Your task to perform on an android device: turn off improve location accuracy Image 0: 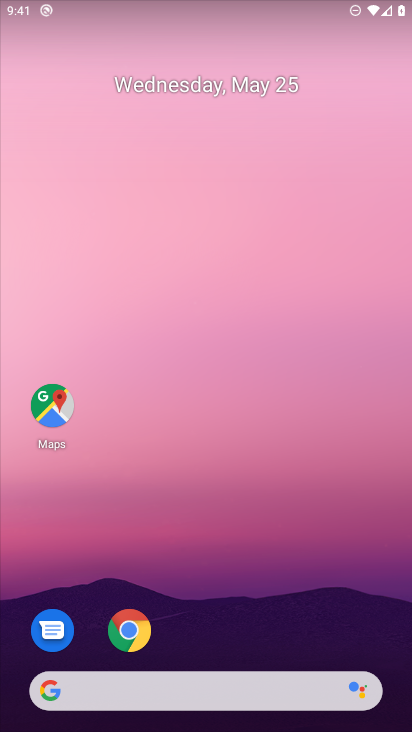
Step 0: drag from (185, 667) to (228, 88)
Your task to perform on an android device: turn off improve location accuracy Image 1: 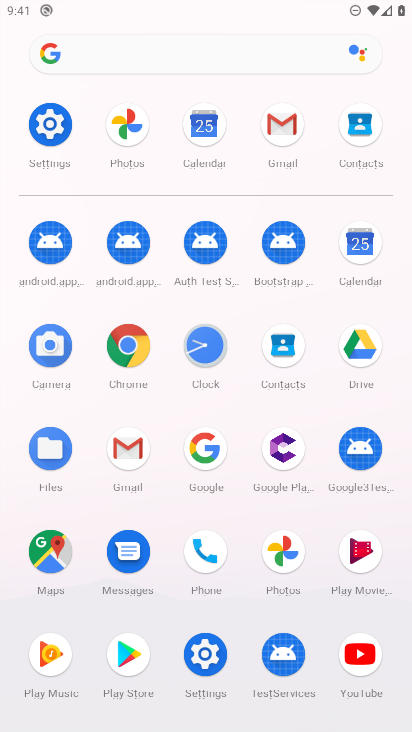
Step 1: click (51, 123)
Your task to perform on an android device: turn off improve location accuracy Image 2: 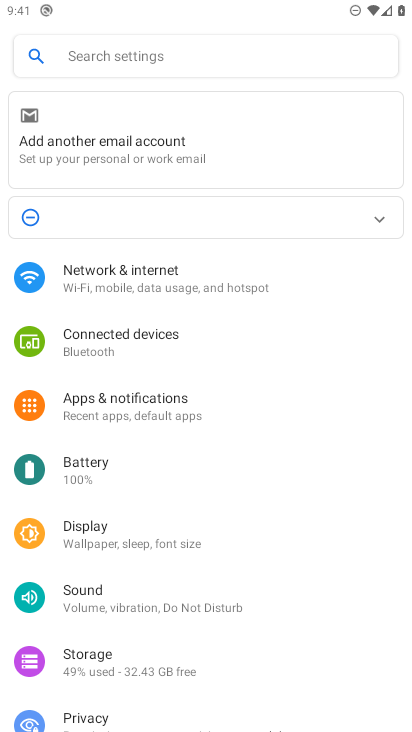
Step 2: drag from (140, 705) to (165, 213)
Your task to perform on an android device: turn off improve location accuracy Image 3: 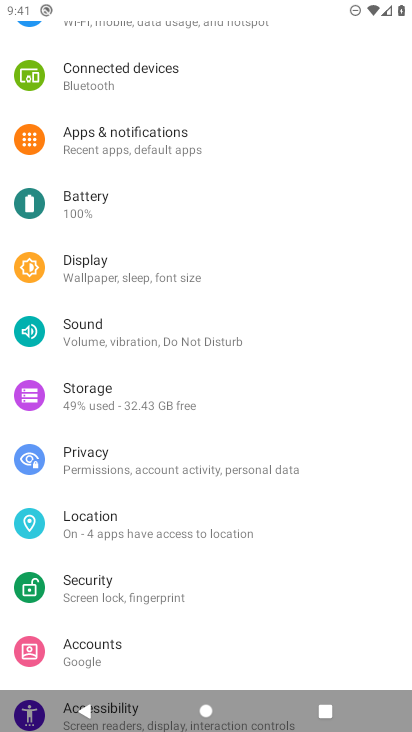
Step 3: click (111, 522)
Your task to perform on an android device: turn off improve location accuracy Image 4: 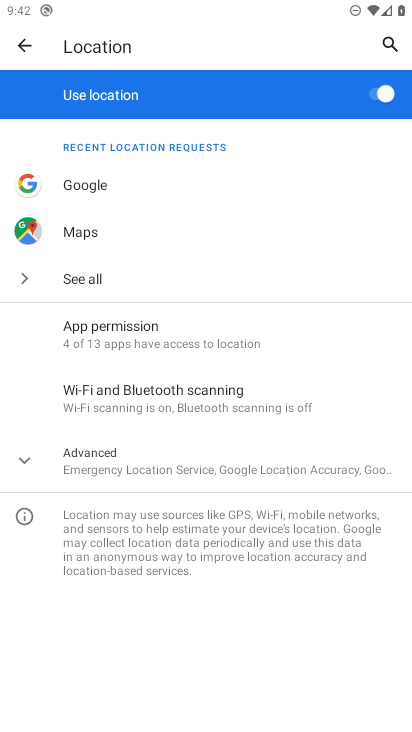
Step 4: click (118, 462)
Your task to perform on an android device: turn off improve location accuracy Image 5: 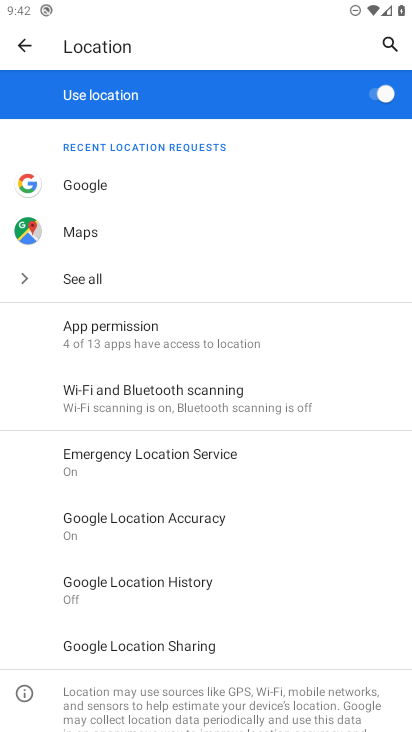
Step 5: click (139, 526)
Your task to perform on an android device: turn off improve location accuracy Image 6: 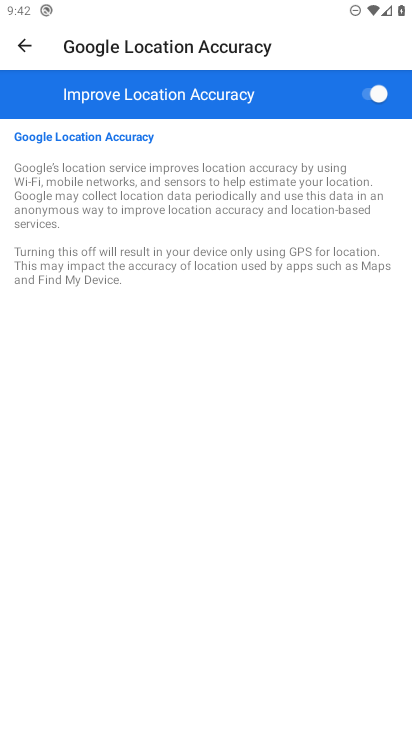
Step 6: click (363, 92)
Your task to perform on an android device: turn off improve location accuracy Image 7: 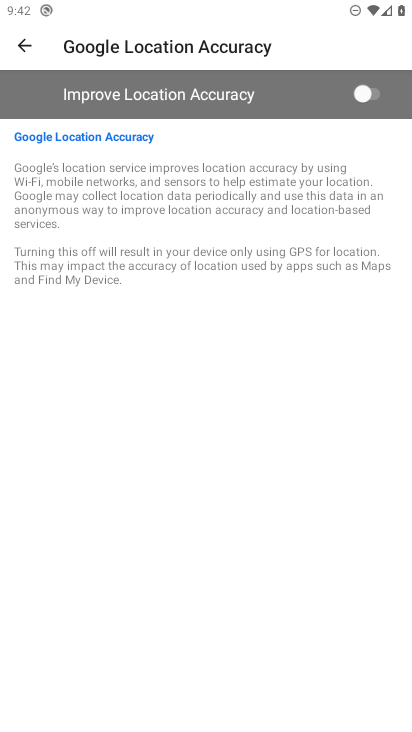
Step 7: task complete